Your task to perform on an android device: Open Yahoo.com Image 0: 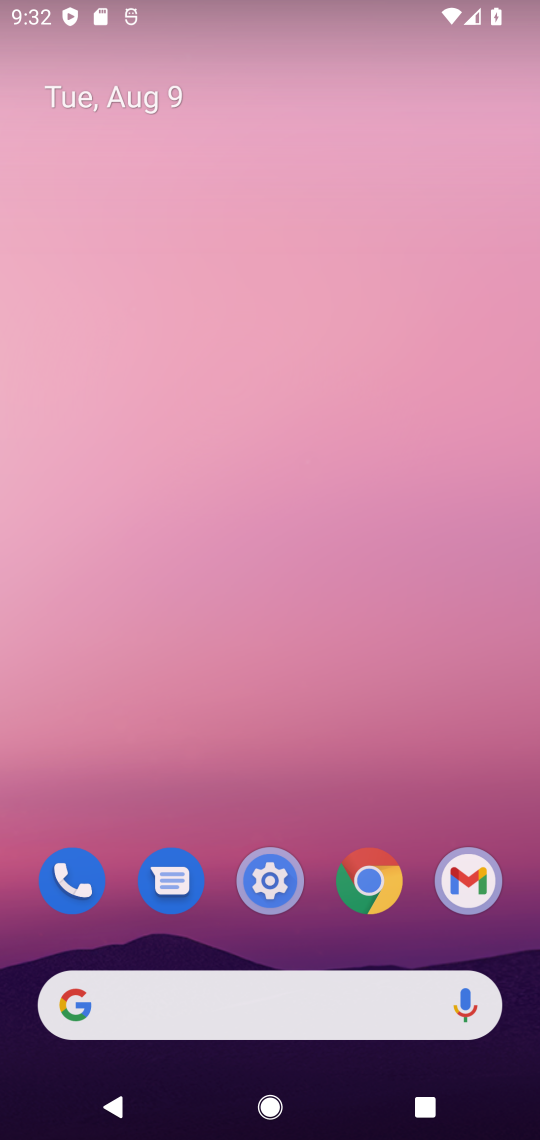
Step 0: press home button
Your task to perform on an android device: Open Yahoo.com Image 1: 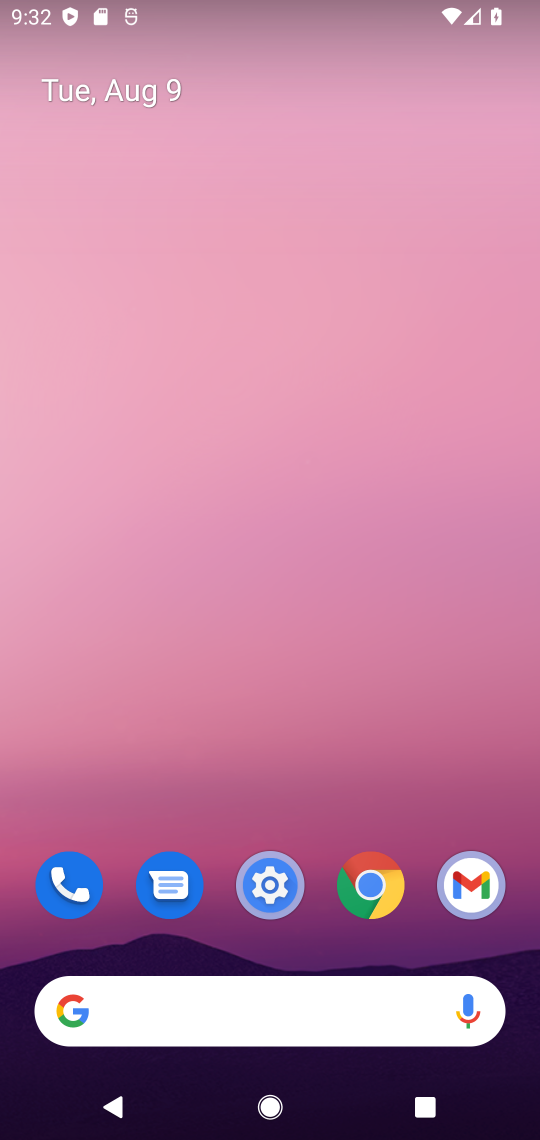
Step 1: drag from (316, 930) to (335, 281)
Your task to perform on an android device: Open Yahoo.com Image 2: 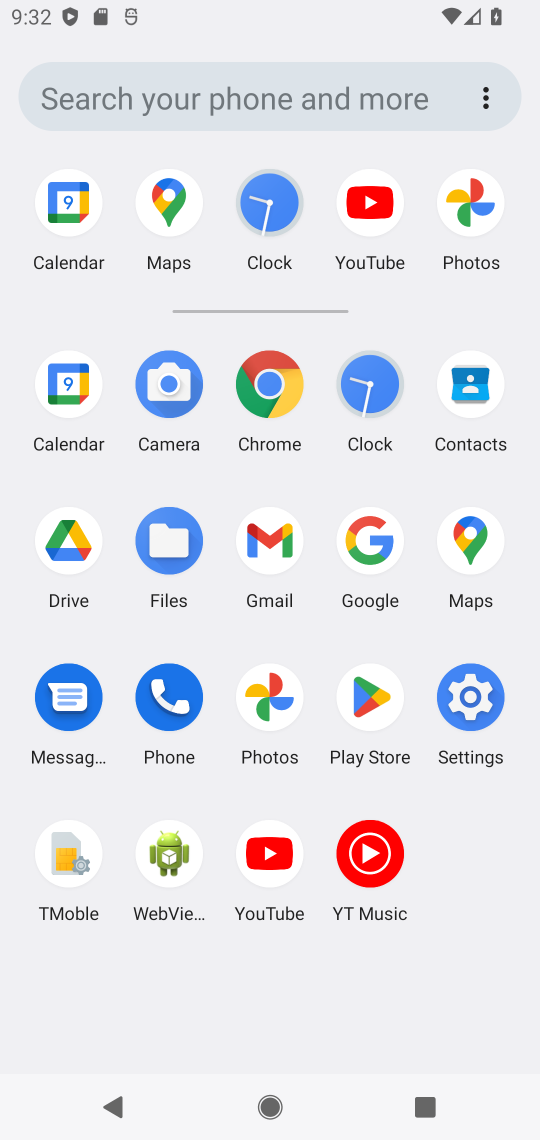
Step 2: click (266, 850)
Your task to perform on an android device: Open Yahoo.com Image 3: 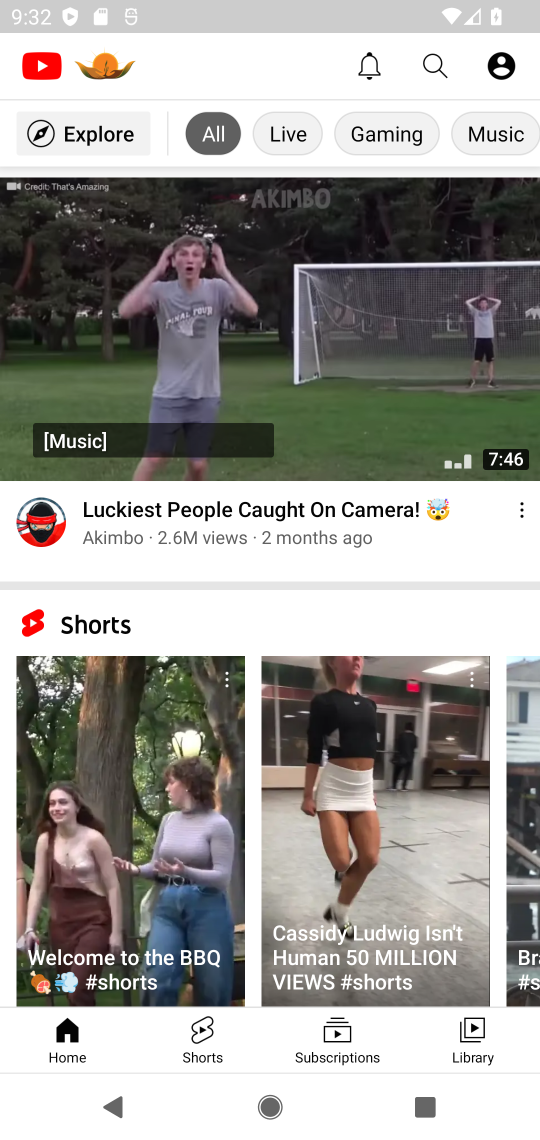
Step 3: press home button
Your task to perform on an android device: Open Yahoo.com Image 4: 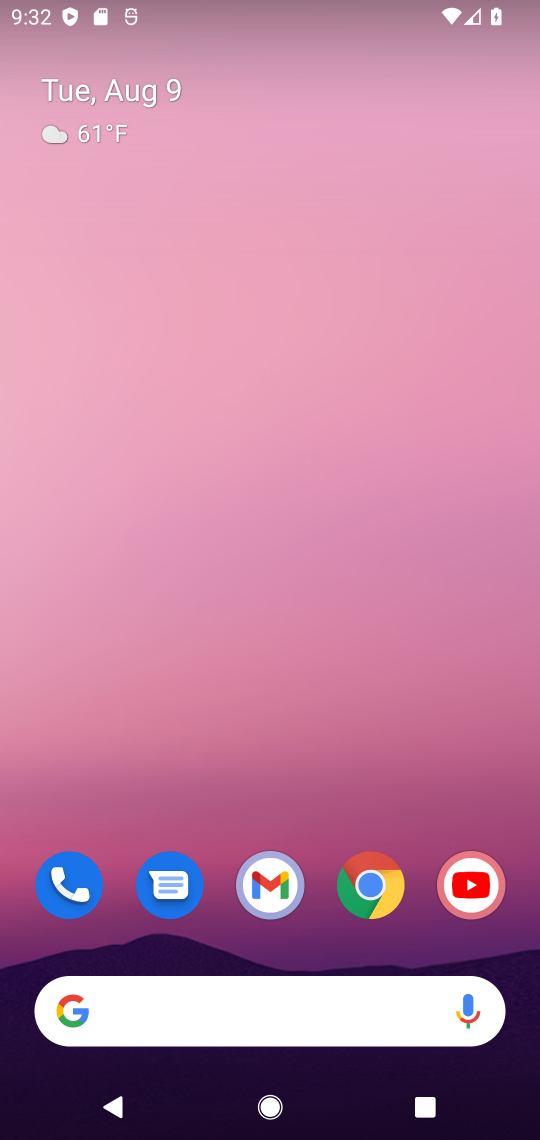
Step 4: drag from (321, 792) to (309, 231)
Your task to perform on an android device: Open Yahoo.com Image 5: 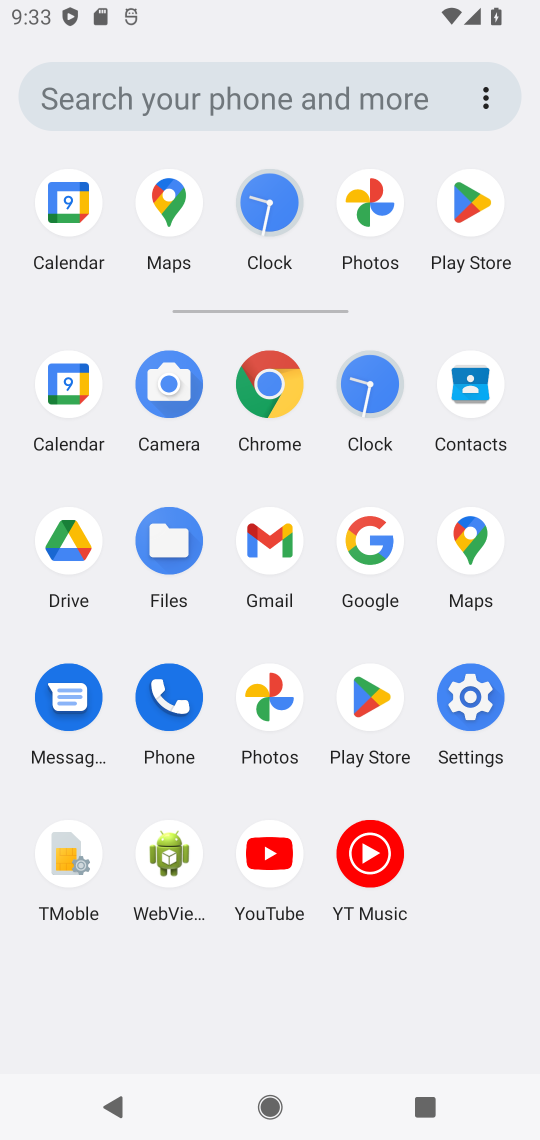
Step 5: click (268, 371)
Your task to perform on an android device: Open Yahoo.com Image 6: 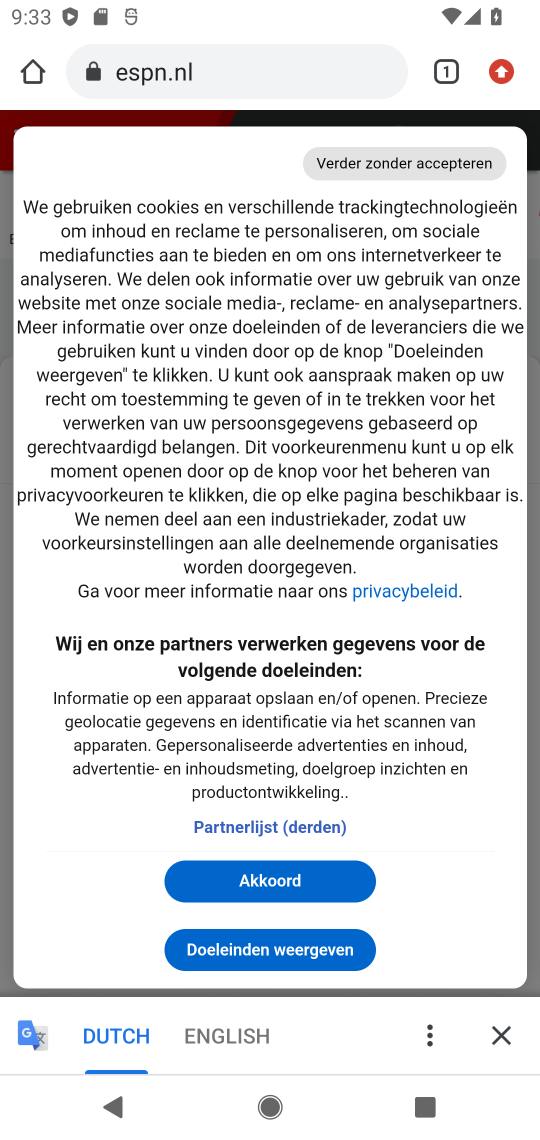
Step 6: click (431, 66)
Your task to perform on an android device: Open Yahoo.com Image 7: 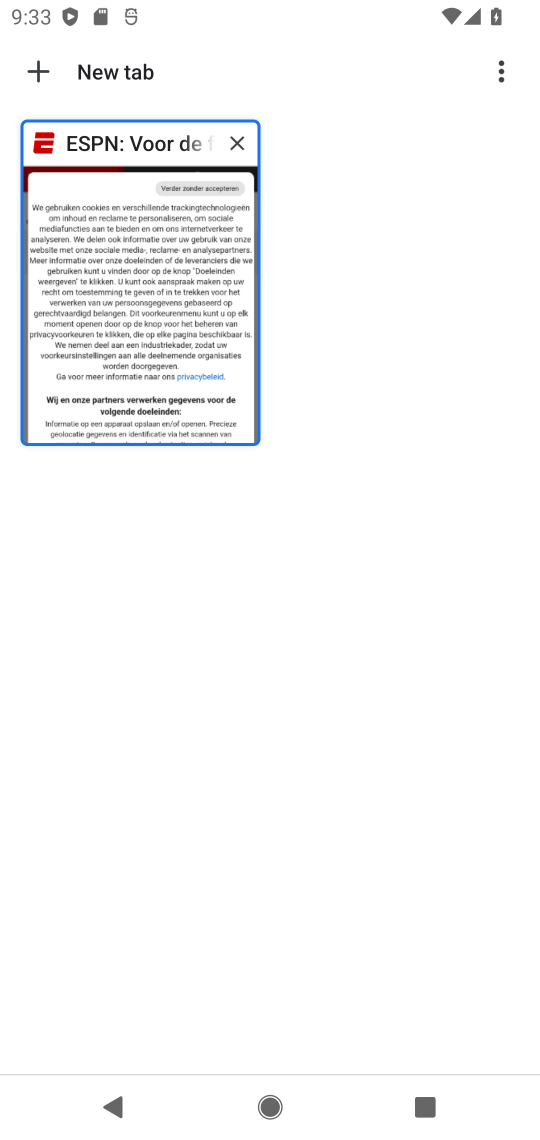
Step 7: click (27, 61)
Your task to perform on an android device: Open Yahoo.com Image 8: 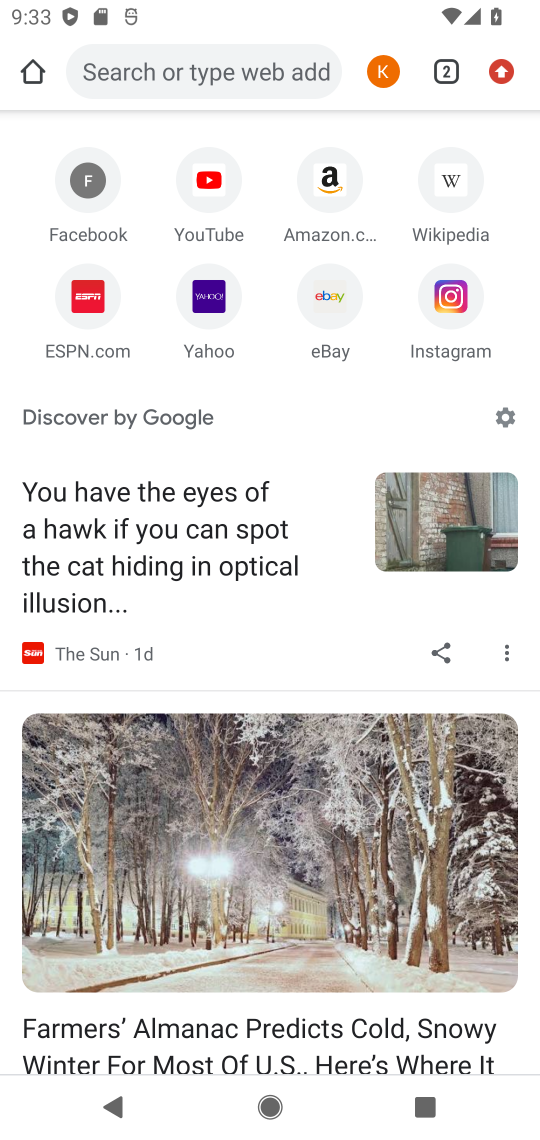
Step 8: click (203, 297)
Your task to perform on an android device: Open Yahoo.com Image 9: 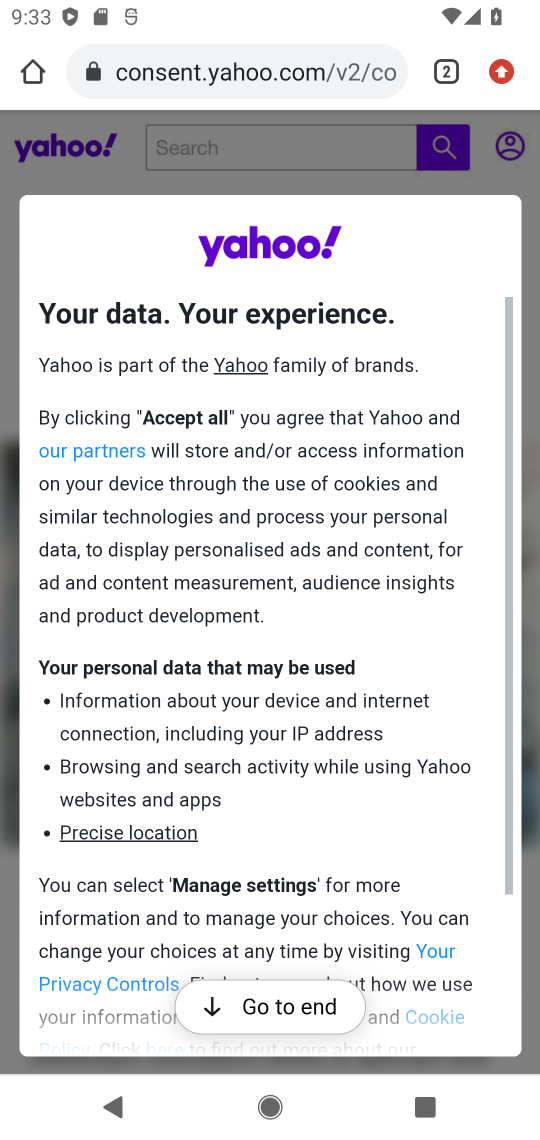
Step 9: click (237, 994)
Your task to perform on an android device: Open Yahoo.com Image 10: 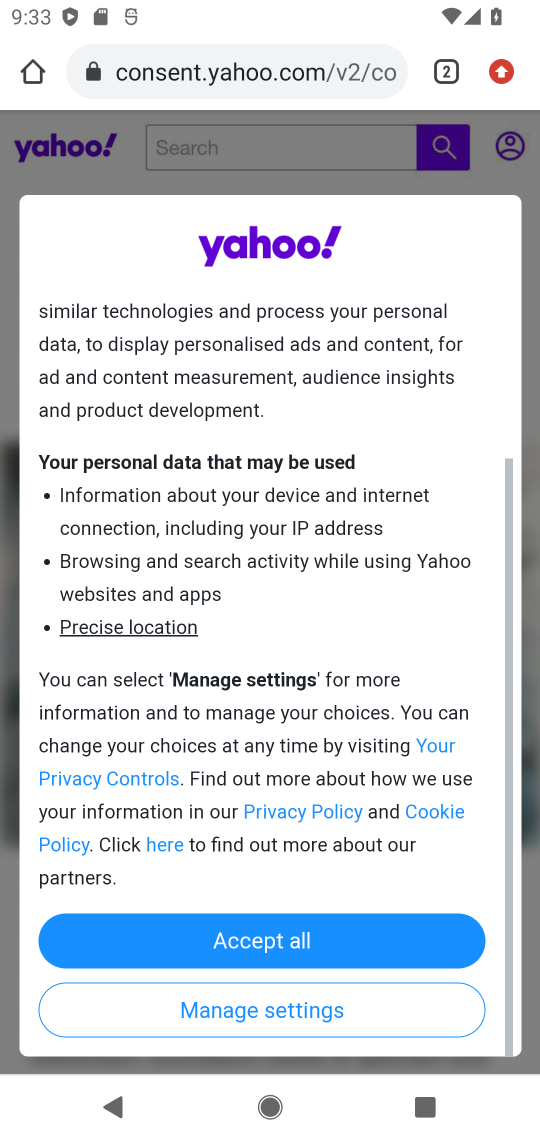
Step 10: click (279, 934)
Your task to perform on an android device: Open Yahoo.com Image 11: 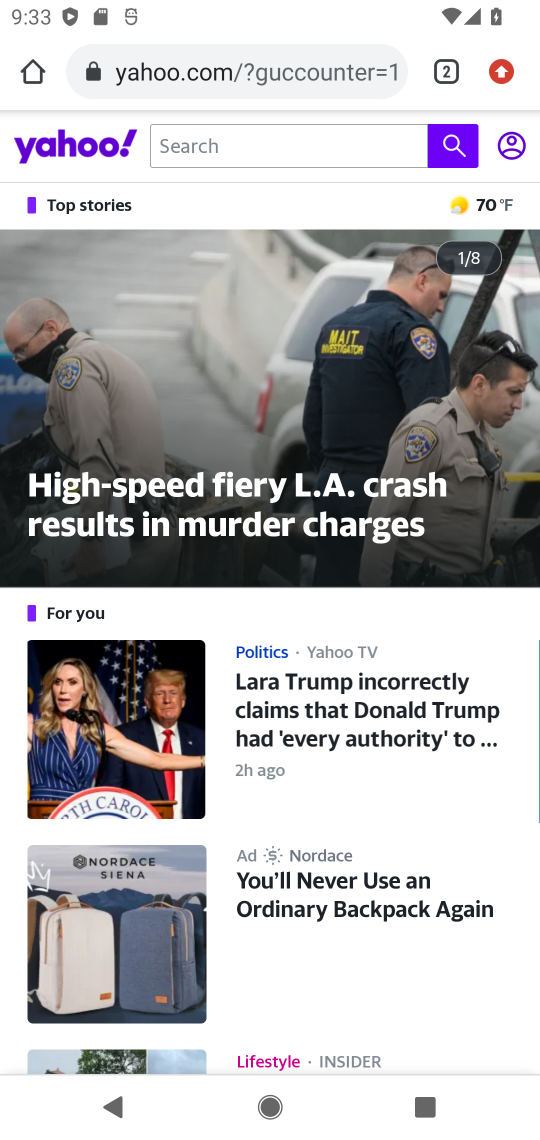
Step 11: task complete